Your task to perform on an android device: Show me productivity apps on the Play Store Image 0: 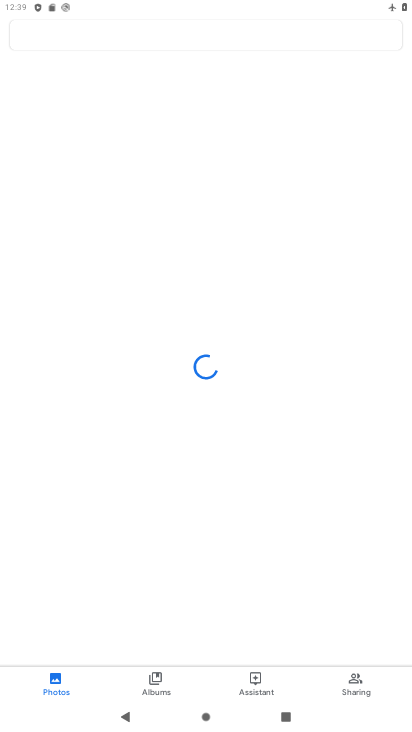
Step 0: press home button
Your task to perform on an android device: Show me productivity apps on the Play Store Image 1: 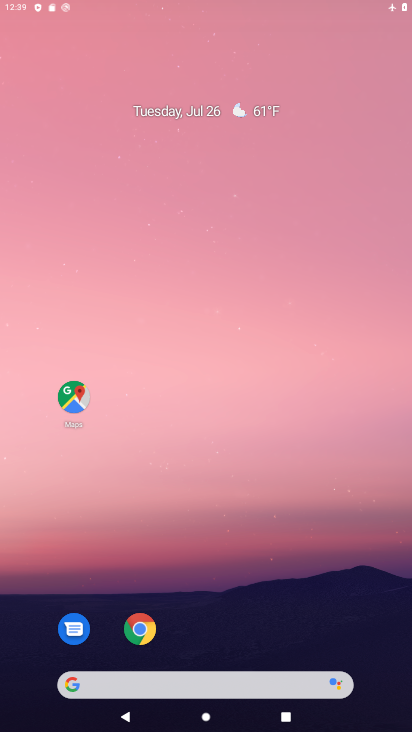
Step 1: drag from (236, 660) to (348, 28)
Your task to perform on an android device: Show me productivity apps on the Play Store Image 2: 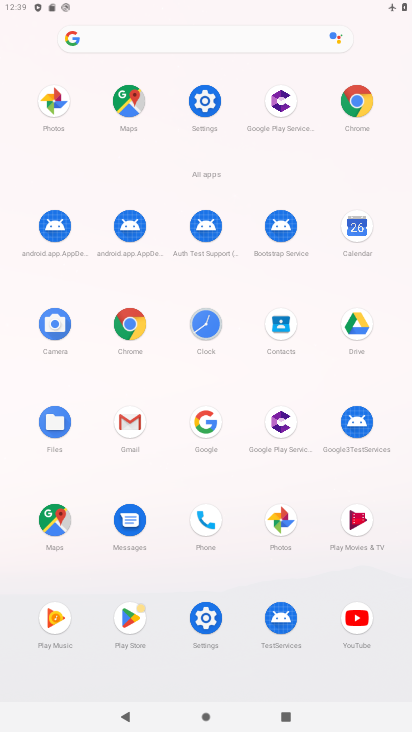
Step 2: click (133, 630)
Your task to perform on an android device: Show me productivity apps on the Play Store Image 3: 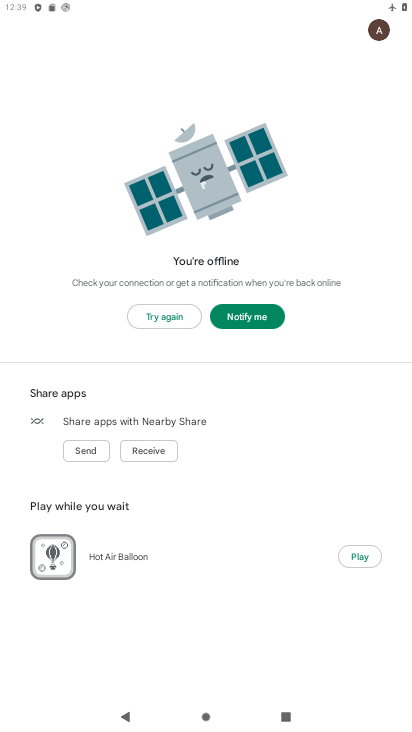
Step 3: click (235, 313)
Your task to perform on an android device: Show me productivity apps on the Play Store Image 4: 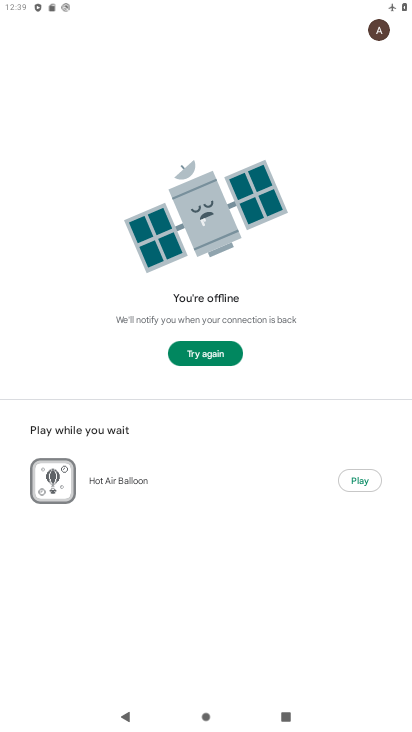
Step 4: task complete